Your task to perform on an android device: turn pop-ups on in chrome Image 0: 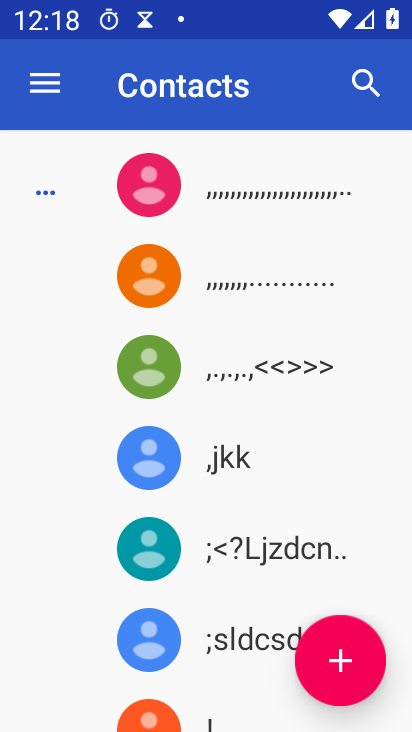
Step 0: press home button
Your task to perform on an android device: turn pop-ups on in chrome Image 1: 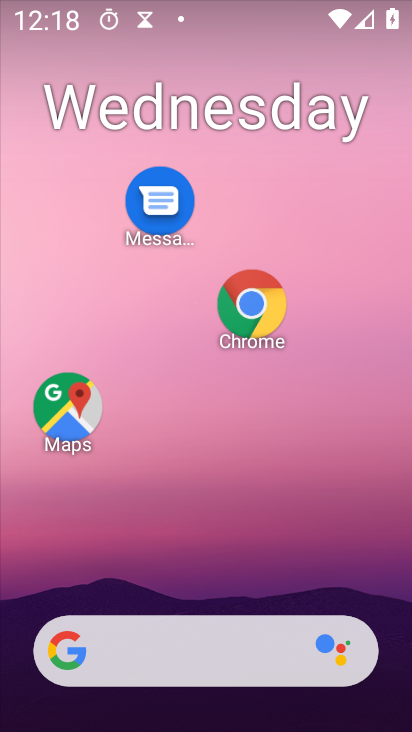
Step 1: drag from (255, 549) to (333, 157)
Your task to perform on an android device: turn pop-ups on in chrome Image 2: 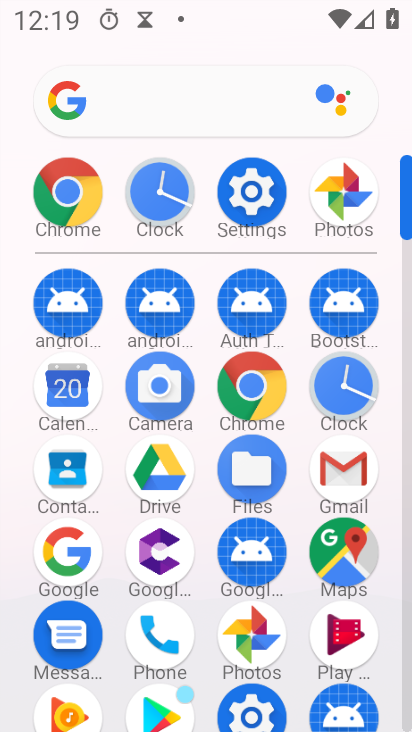
Step 2: click (252, 380)
Your task to perform on an android device: turn pop-ups on in chrome Image 3: 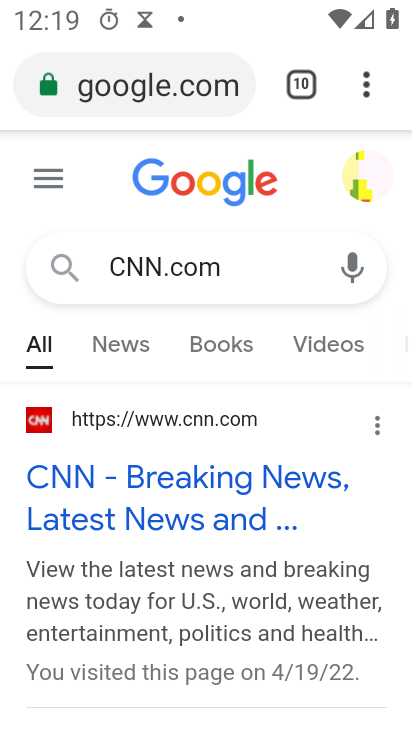
Step 3: click (364, 85)
Your task to perform on an android device: turn pop-ups on in chrome Image 4: 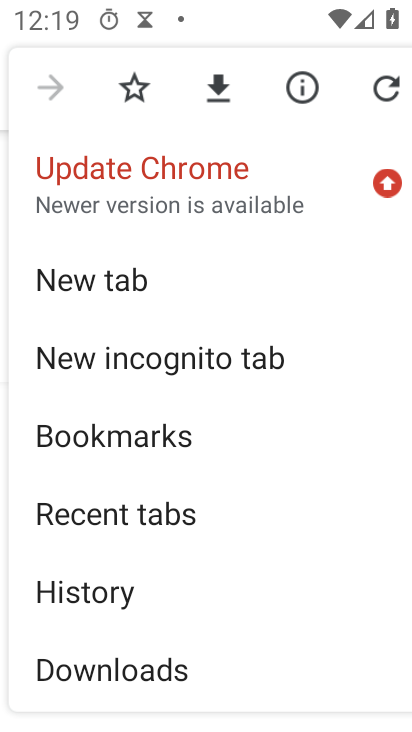
Step 4: drag from (187, 652) to (194, 230)
Your task to perform on an android device: turn pop-ups on in chrome Image 5: 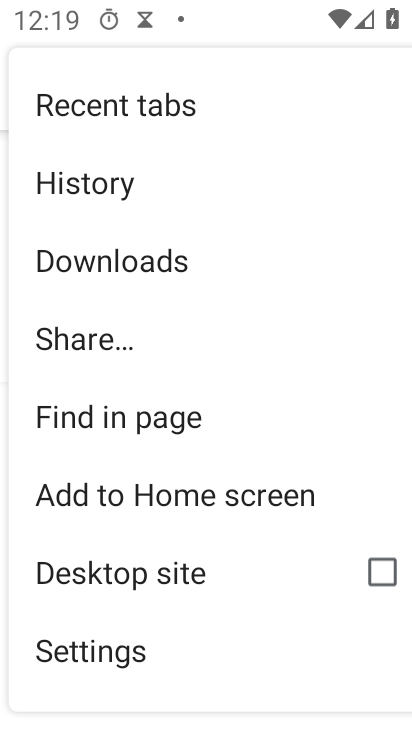
Step 5: click (121, 651)
Your task to perform on an android device: turn pop-ups on in chrome Image 6: 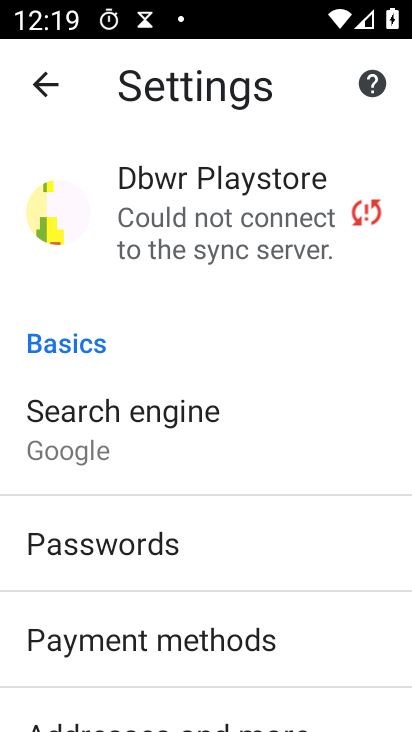
Step 6: drag from (207, 553) to (255, 128)
Your task to perform on an android device: turn pop-ups on in chrome Image 7: 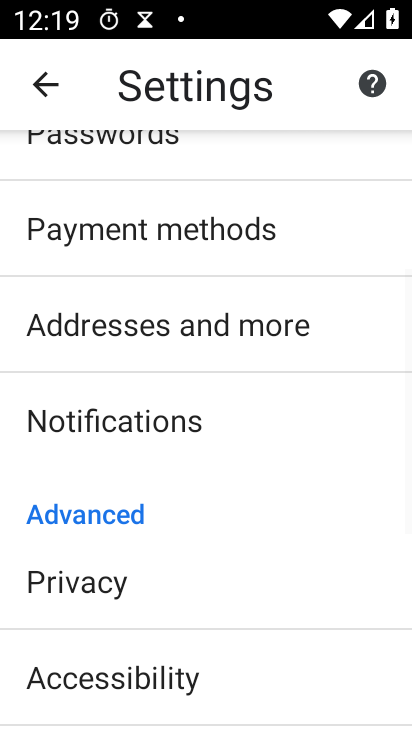
Step 7: drag from (141, 687) to (220, 228)
Your task to perform on an android device: turn pop-ups on in chrome Image 8: 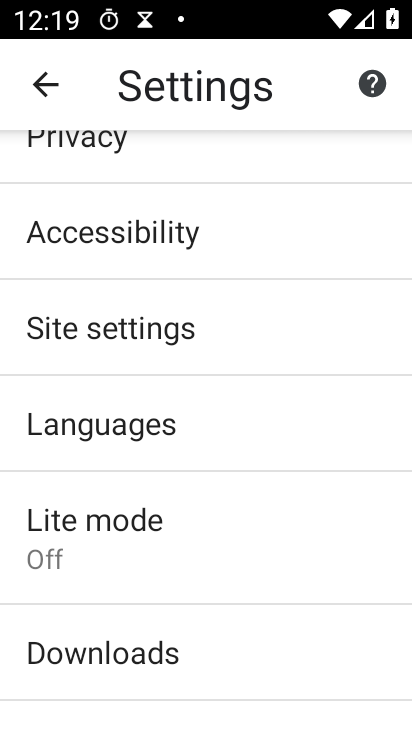
Step 8: click (159, 345)
Your task to perform on an android device: turn pop-ups on in chrome Image 9: 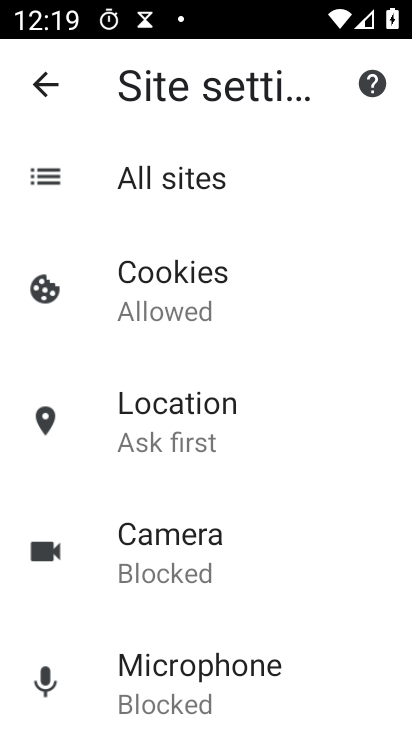
Step 9: drag from (220, 597) to (275, 190)
Your task to perform on an android device: turn pop-ups on in chrome Image 10: 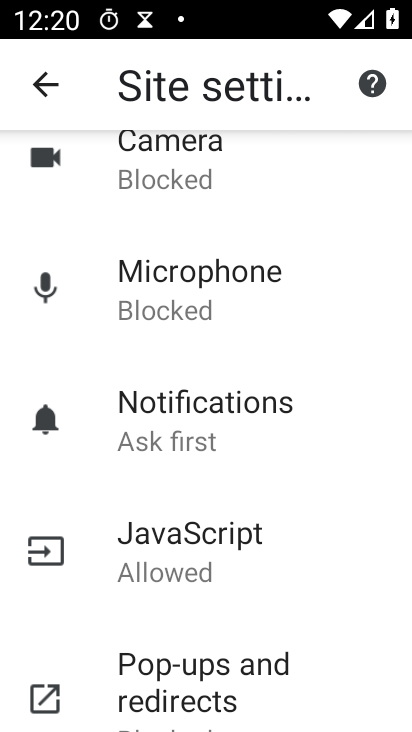
Step 10: click (201, 675)
Your task to perform on an android device: turn pop-ups on in chrome Image 11: 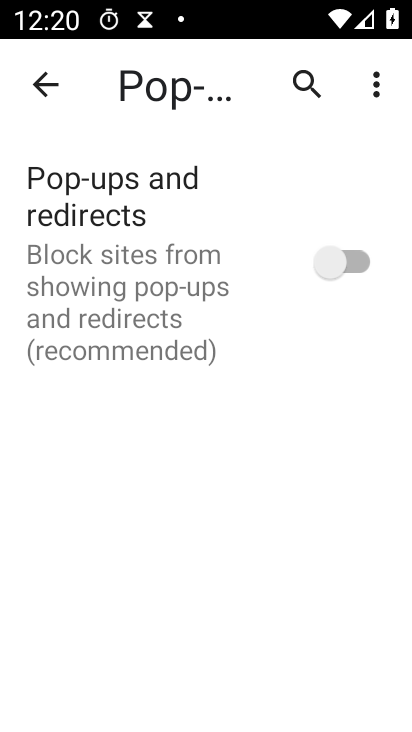
Step 11: click (348, 250)
Your task to perform on an android device: turn pop-ups on in chrome Image 12: 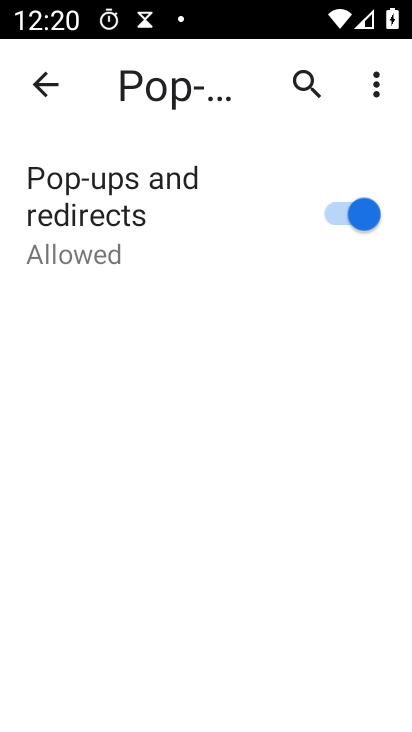
Step 12: task complete